Your task to perform on an android device: clear all cookies in the chrome app Image 0: 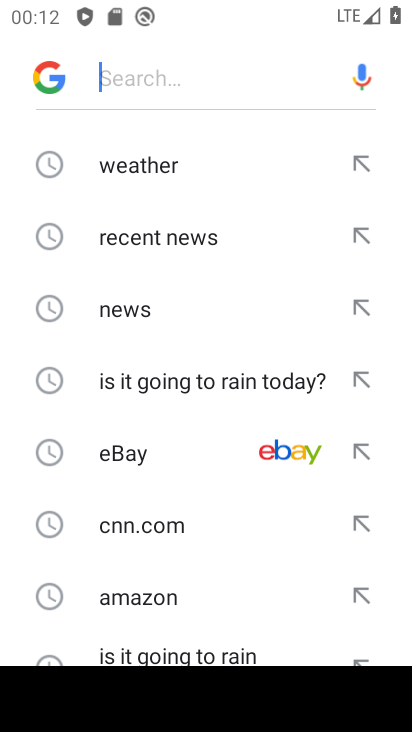
Step 0: press home button
Your task to perform on an android device: clear all cookies in the chrome app Image 1: 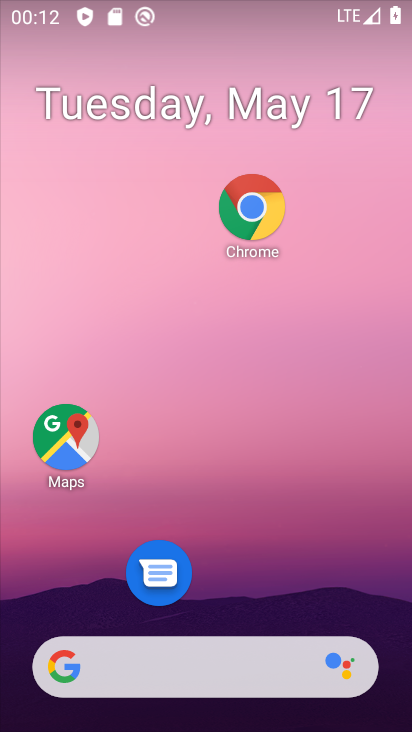
Step 1: drag from (221, 650) to (260, 83)
Your task to perform on an android device: clear all cookies in the chrome app Image 2: 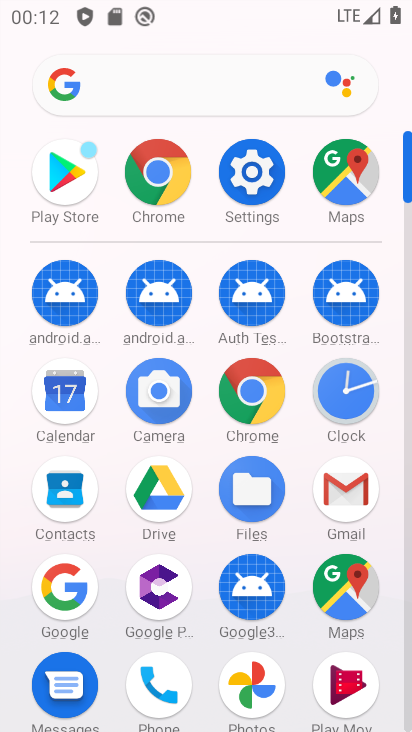
Step 2: click (243, 396)
Your task to perform on an android device: clear all cookies in the chrome app Image 3: 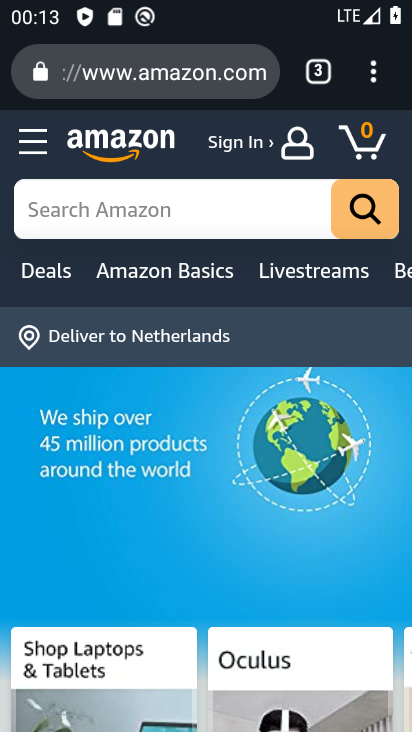
Step 3: click (382, 75)
Your task to perform on an android device: clear all cookies in the chrome app Image 4: 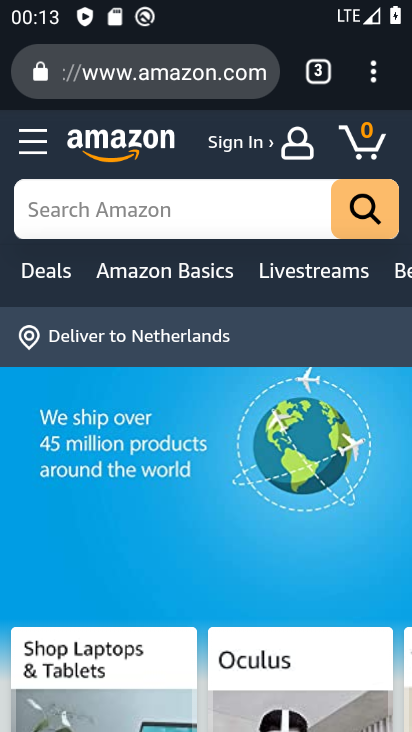
Step 4: drag from (373, 74) to (123, 586)
Your task to perform on an android device: clear all cookies in the chrome app Image 5: 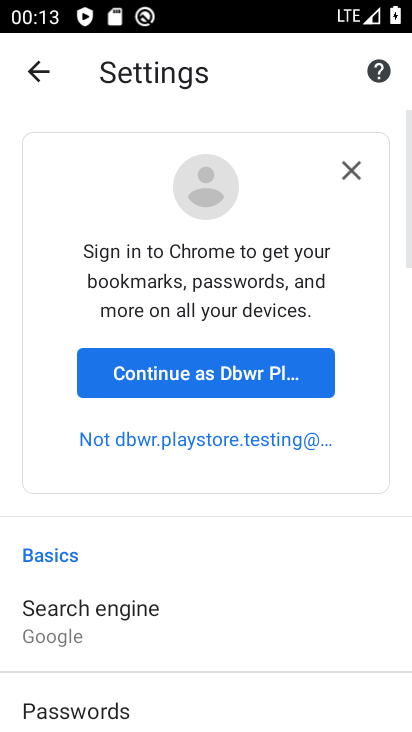
Step 5: drag from (255, 703) to (255, 9)
Your task to perform on an android device: clear all cookies in the chrome app Image 6: 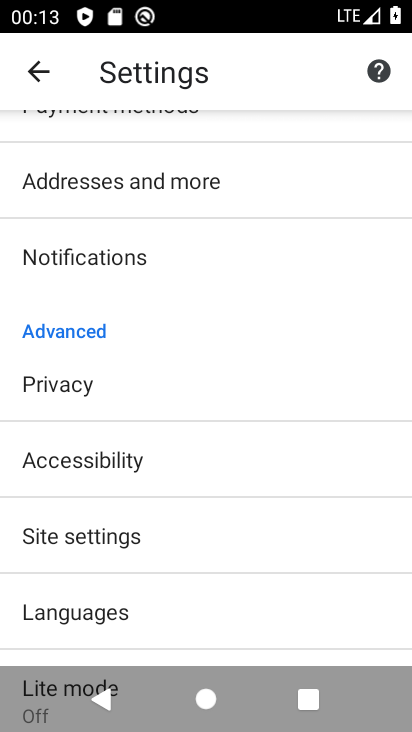
Step 6: click (120, 388)
Your task to perform on an android device: clear all cookies in the chrome app Image 7: 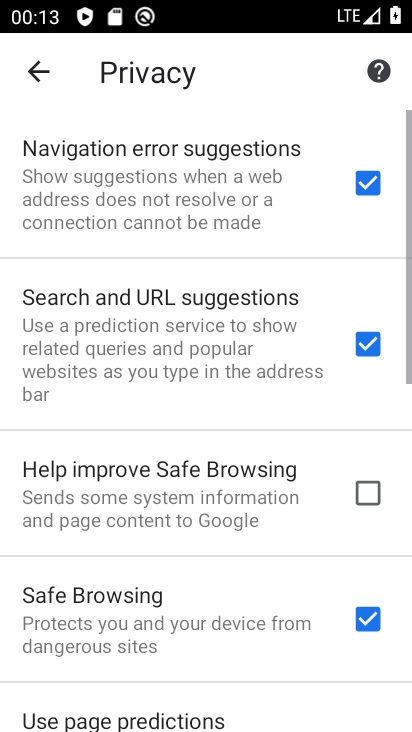
Step 7: drag from (186, 724) to (133, 8)
Your task to perform on an android device: clear all cookies in the chrome app Image 8: 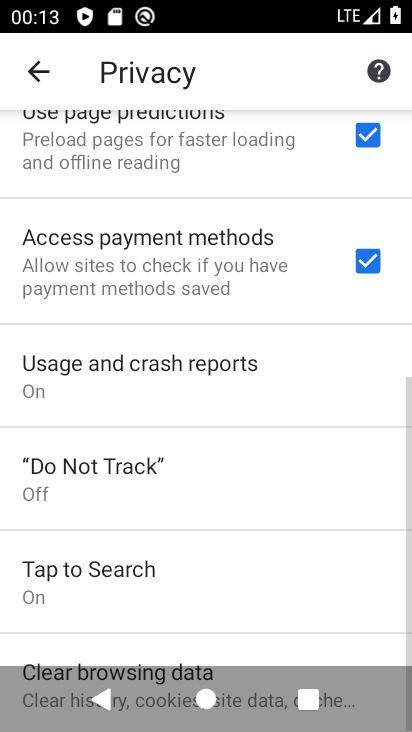
Step 8: drag from (189, 634) to (179, 230)
Your task to perform on an android device: clear all cookies in the chrome app Image 9: 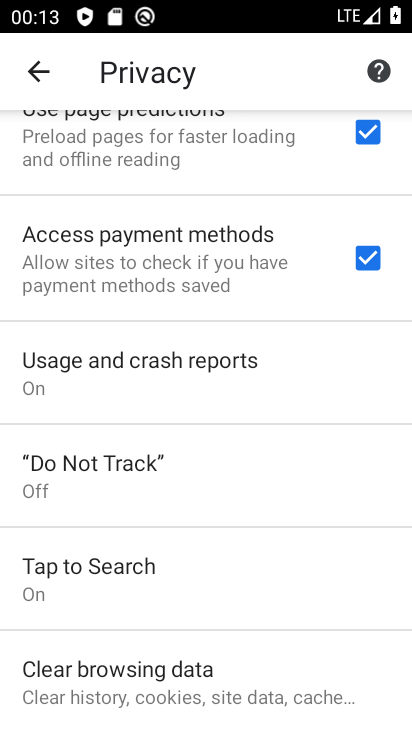
Step 9: click (172, 652)
Your task to perform on an android device: clear all cookies in the chrome app Image 10: 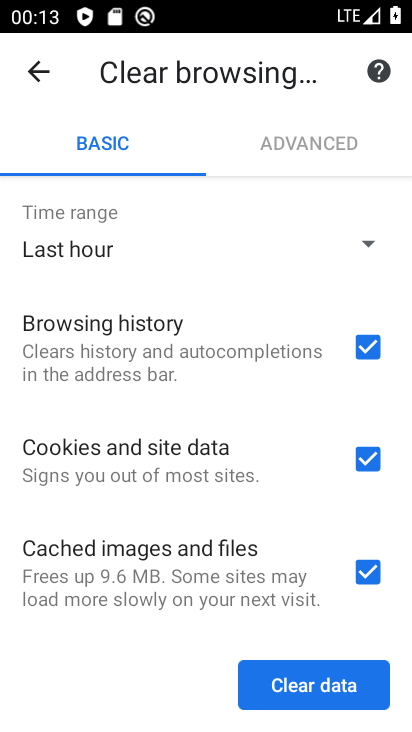
Step 10: click (332, 683)
Your task to perform on an android device: clear all cookies in the chrome app Image 11: 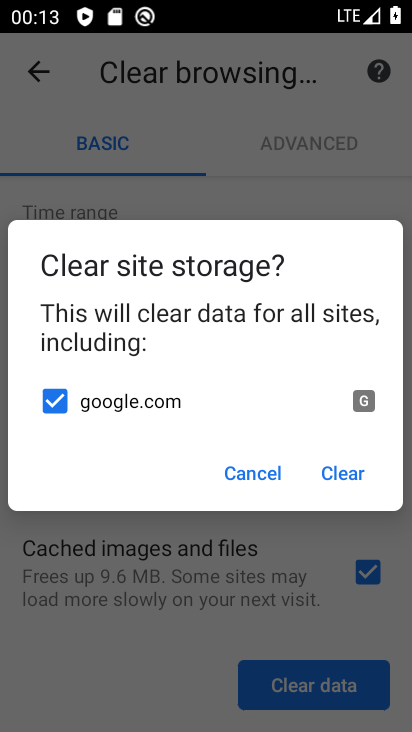
Step 11: click (347, 472)
Your task to perform on an android device: clear all cookies in the chrome app Image 12: 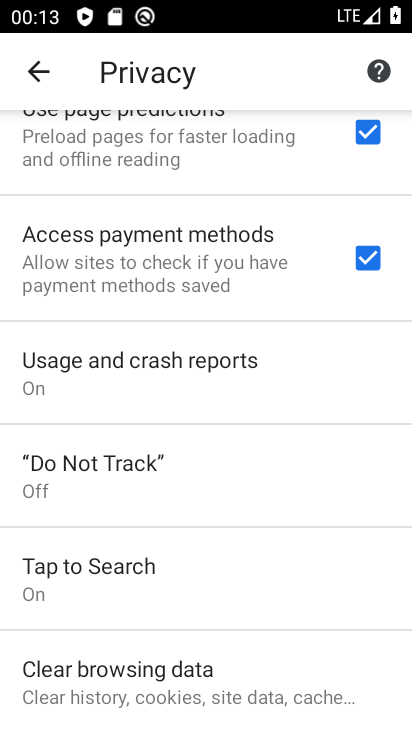
Step 12: task complete